Your task to perform on an android device: Open Maps and search for coffee Image 0: 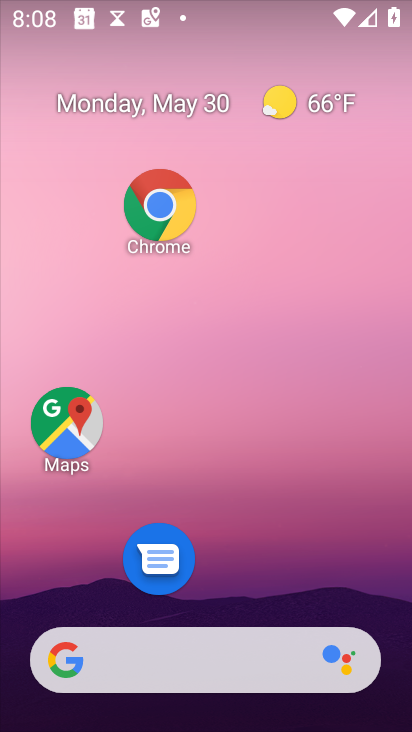
Step 0: drag from (270, 689) to (263, 289)
Your task to perform on an android device: Open Maps and search for coffee Image 1: 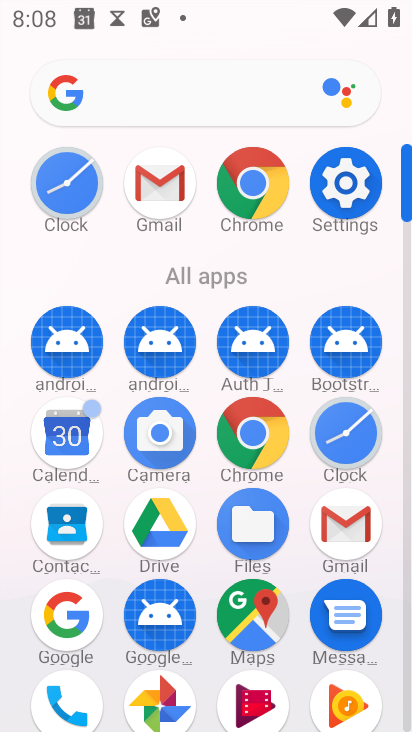
Step 1: click (229, 618)
Your task to perform on an android device: Open Maps and search for coffee Image 2: 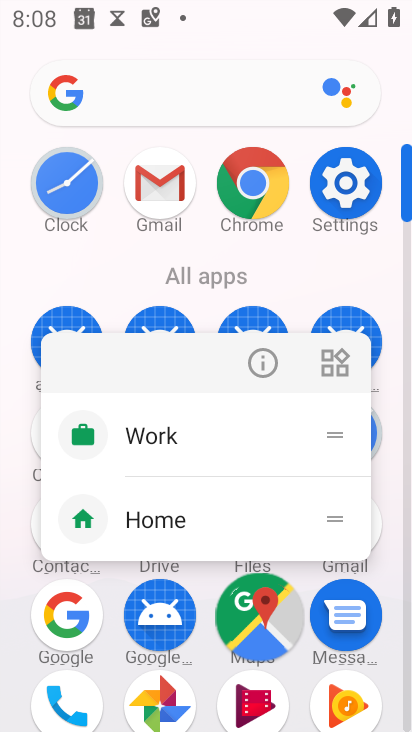
Step 2: click (237, 620)
Your task to perform on an android device: Open Maps and search for coffee Image 3: 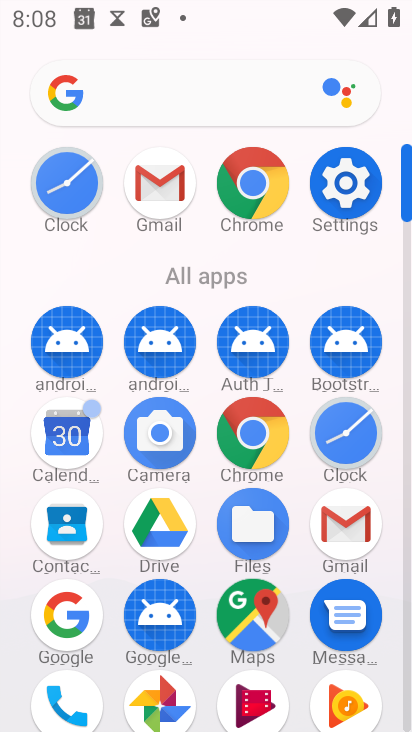
Step 3: click (235, 613)
Your task to perform on an android device: Open Maps and search for coffee Image 4: 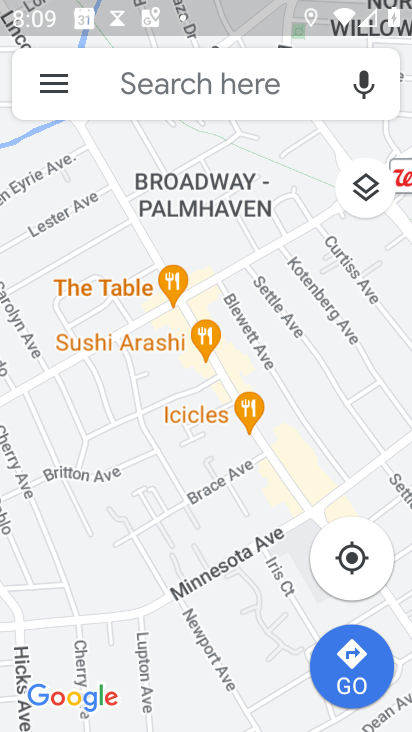
Step 4: click (119, 80)
Your task to perform on an android device: Open Maps and search for coffee Image 5: 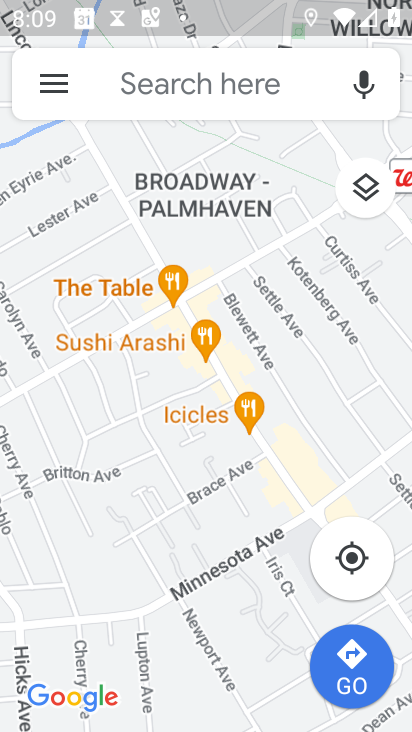
Step 5: click (119, 73)
Your task to perform on an android device: Open Maps and search for coffee Image 6: 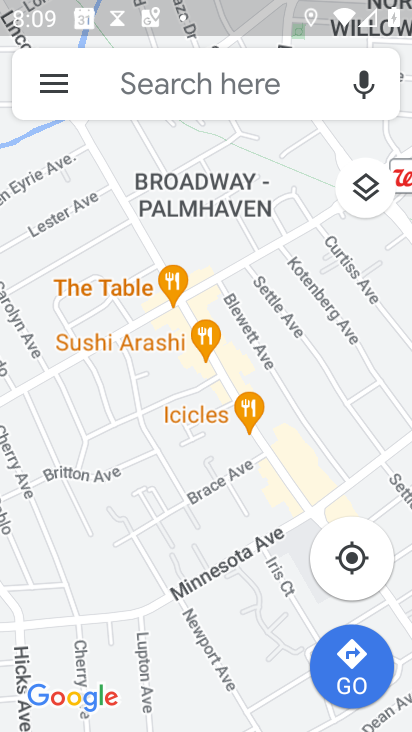
Step 6: click (122, 76)
Your task to perform on an android device: Open Maps and search for coffee Image 7: 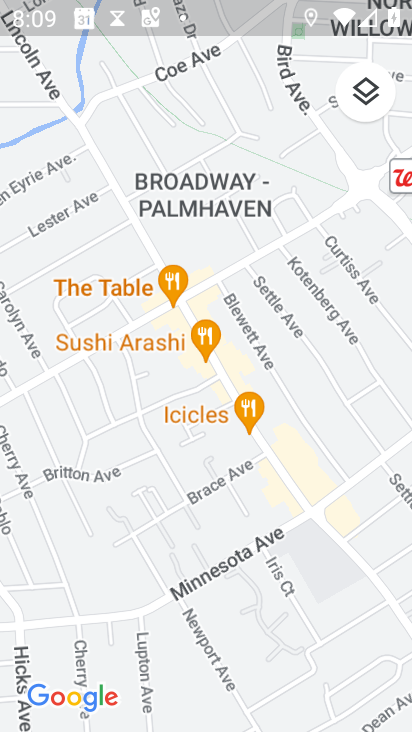
Step 7: click (126, 80)
Your task to perform on an android device: Open Maps and search for coffee Image 8: 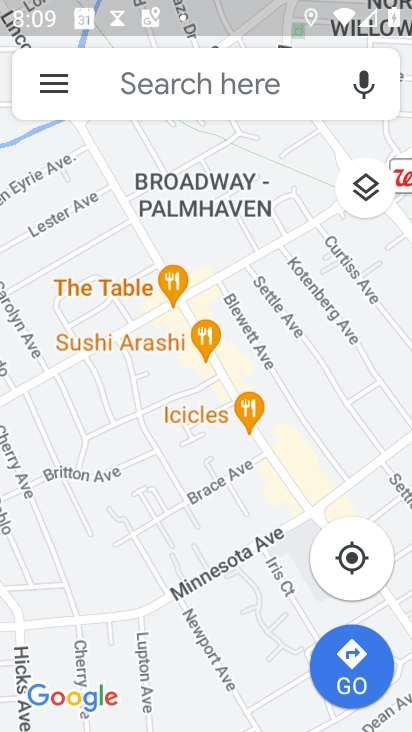
Step 8: drag from (157, 226) to (200, 415)
Your task to perform on an android device: Open Maps and search for coffee Image 9: 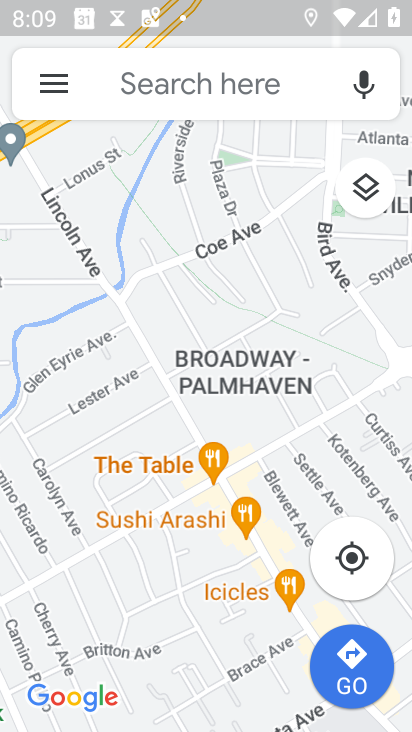
Step 9: click (126, 80)
Your task to perform on an android device: Open Maps and search for coffee Image 10: 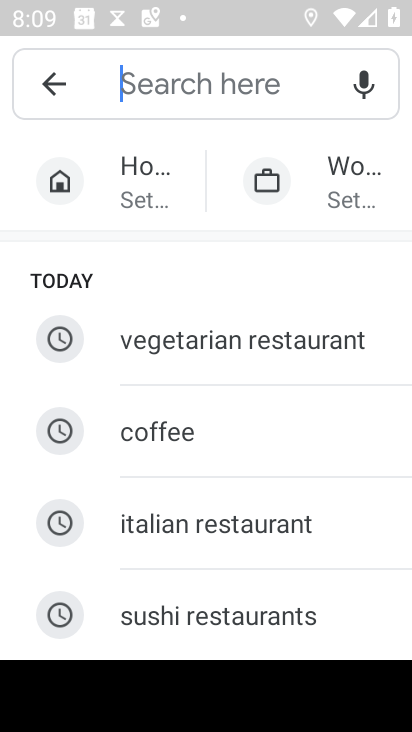
Step 10: click (174, 415)
Your task to perform on an android device: Open Maps and search for coffee Image 11: 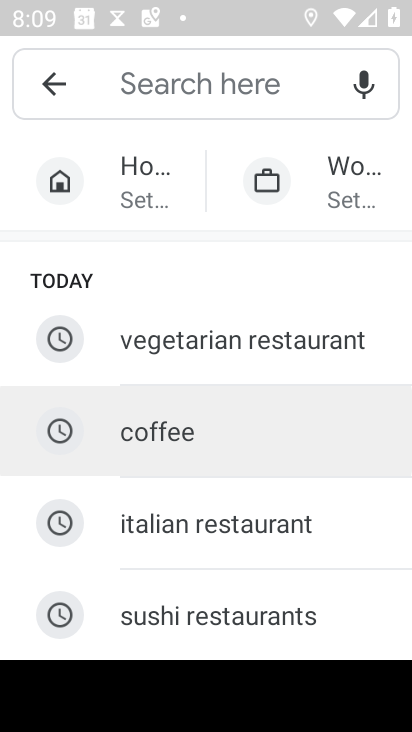
Step 11: click (172, 423)
Your task to perform on an android device: Open Maps and search for coffee Image 12: 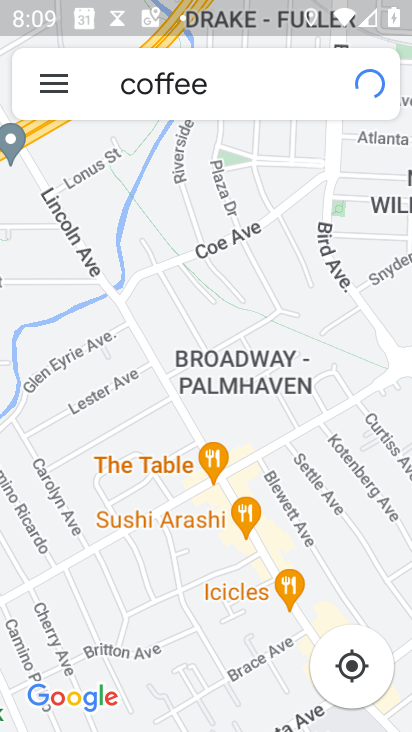
Step 12: task complete